Your task to perform on an android device: change your default location settings in chrome Image 0: 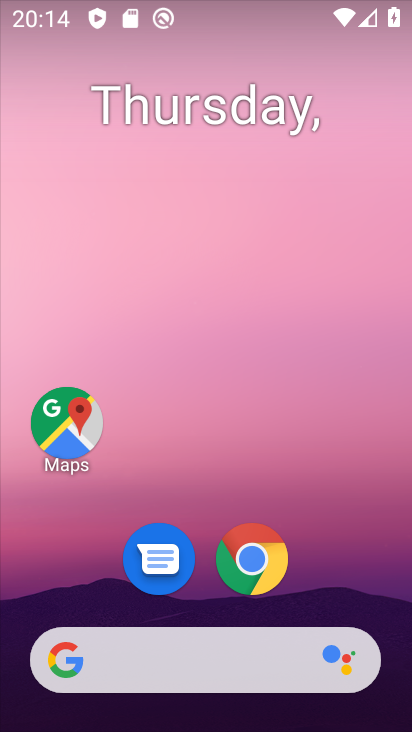
Step 0: click (267, 573)
Your task to perform on an android device: change your default location settings in chrome Image 1: 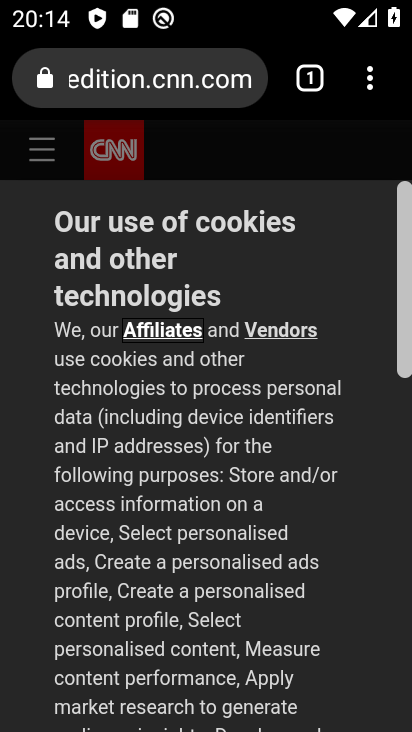
Step 1: drag from (371, 96) to (126, 621)
Your task to perform on an android device: change your default location settings in chrome Image 2: 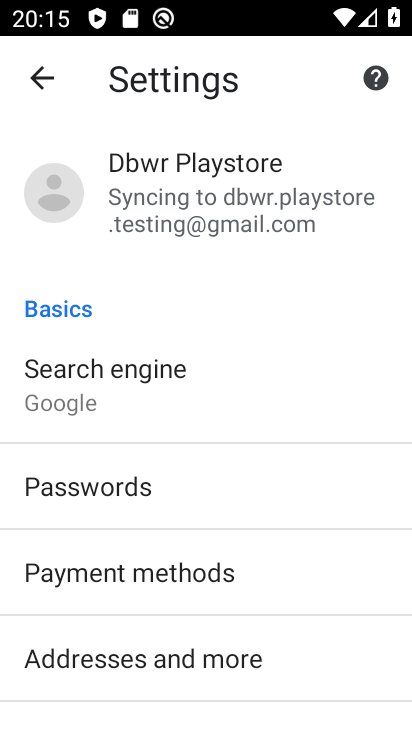
Step 2: drag from (159, 635) to (171, 162)
Your task to perform on an android device: change your default location settings in chrome Image 3: 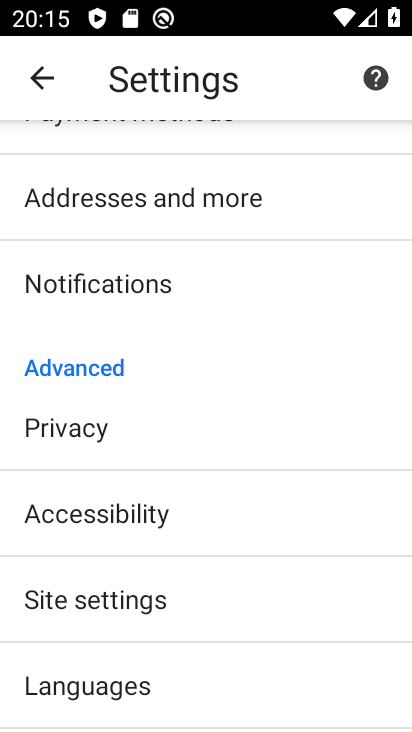
Step 3: click (144, 606)
Your task to perform on an android device: change your default location settings in chrome Image 4: 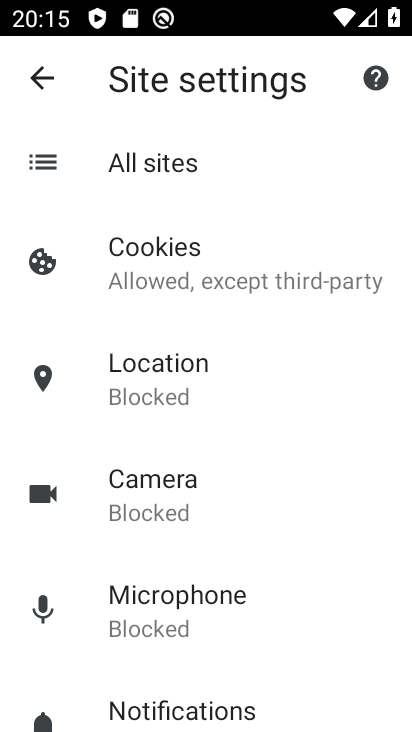
Step 4: click (180, 377)
Your task to perform on an android device: change your default location settings in chrome Image 5: 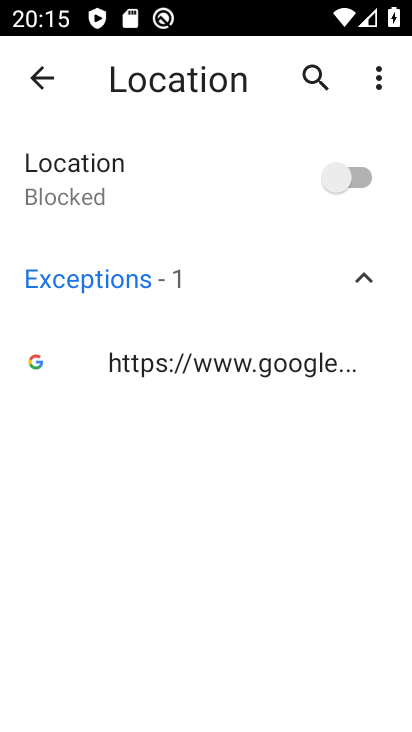
Step 5: click (350, 185)
Your task to perform on an android device: change your default location settings in chrome Image 6: 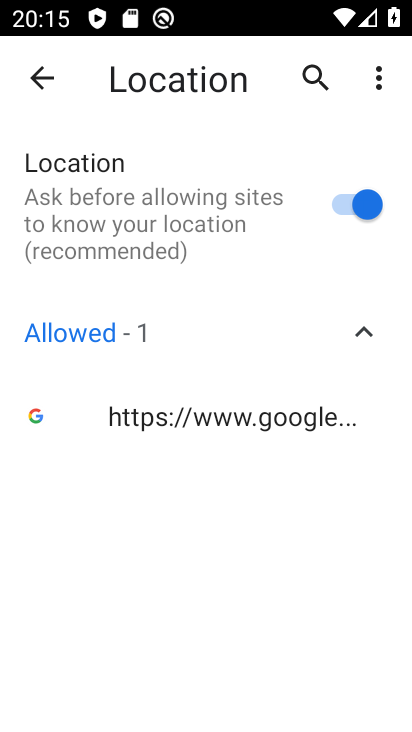
Step 6: task complete